Your task to perform on an android device: toggle airplane mode Image 0: 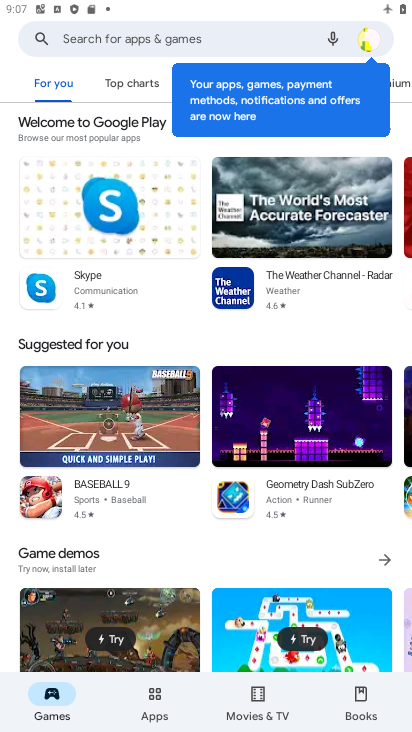
Step 0: press home button
Your task to perform on an android device: toggle airplane mode Image 1: 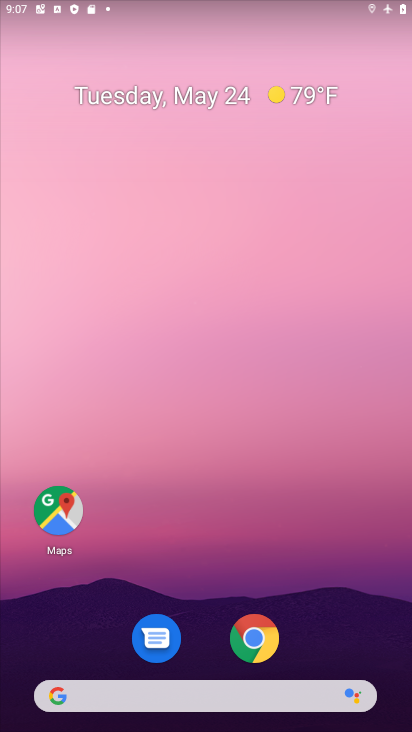
Step 1: drag from (141, 725) to (118, 15)
Your task to perform on an android device: toggle airplane mode Image 2: 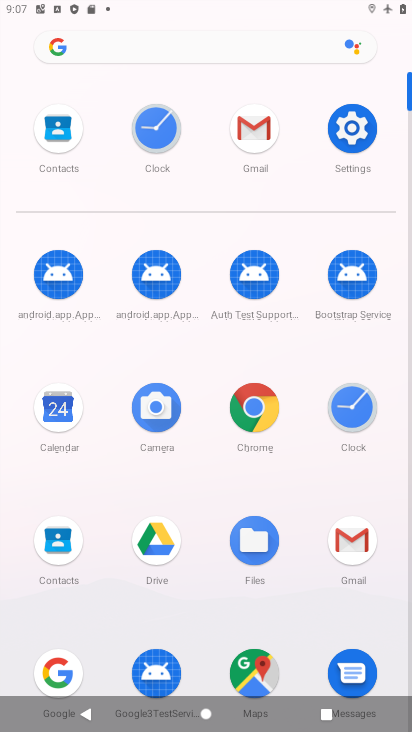
Step 2: click (361, 130)
Your task to perform on an android device: toggle airplane mode Image 3: 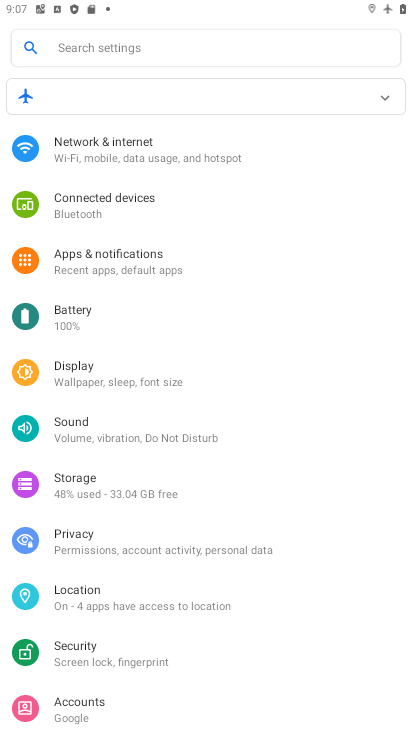
Step 3: click (171, 151)
Your task to perform on an android device: toggle airplane mode Image 4: 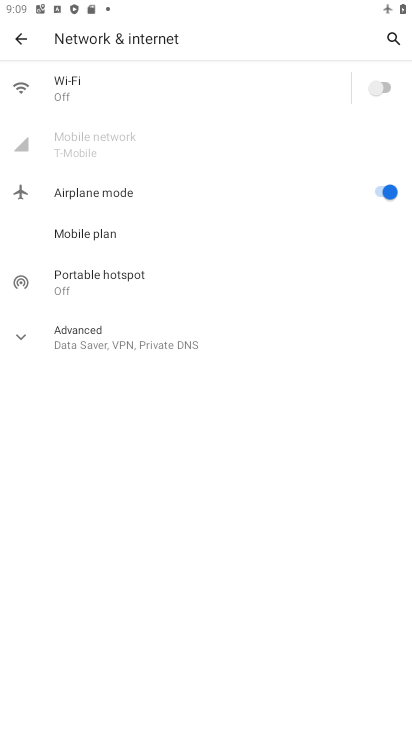
Step 4: click (385, 198)
Your task to perform on an android device: toggle airplane mode Image 5: 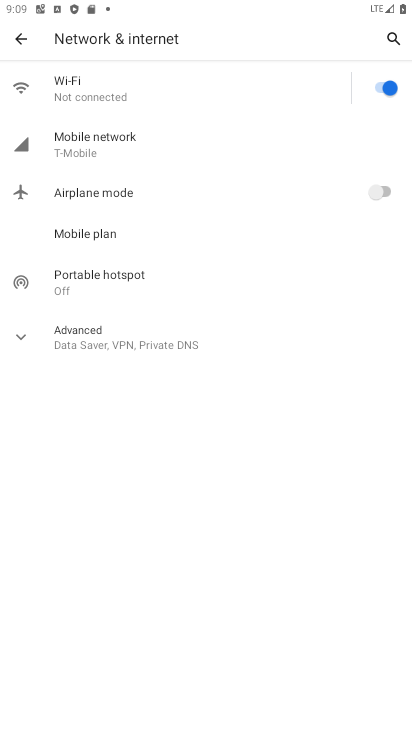
Step 5: task complete